Your task to perform on an android device: turn off improve location accuracy Image 0: 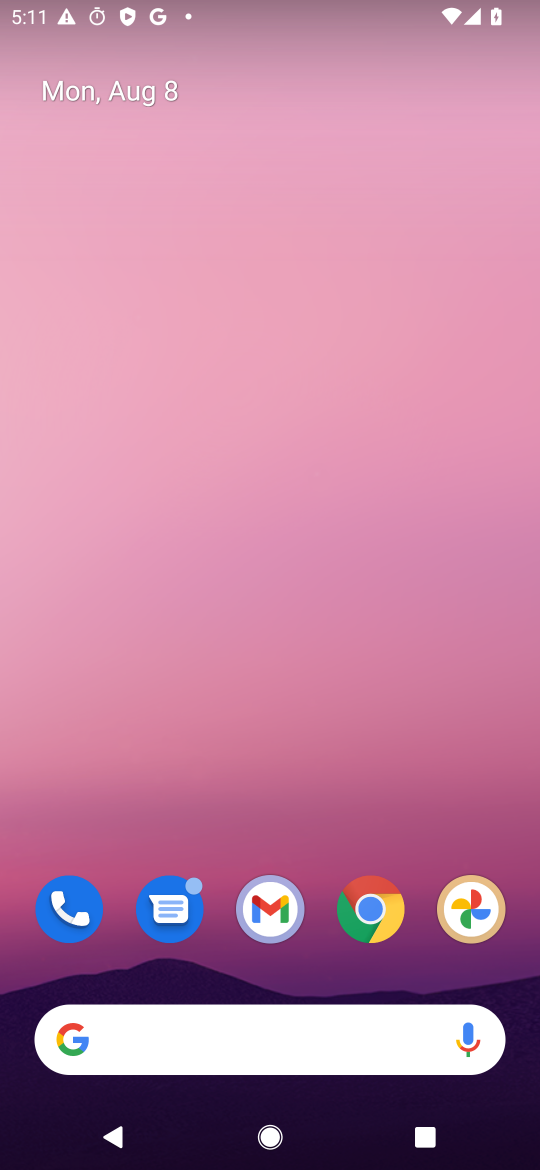
Step 0: drag from (279, 1043) to (465, 82)
Your task to perform on an android device: turn off improve location accuracy Image 1: 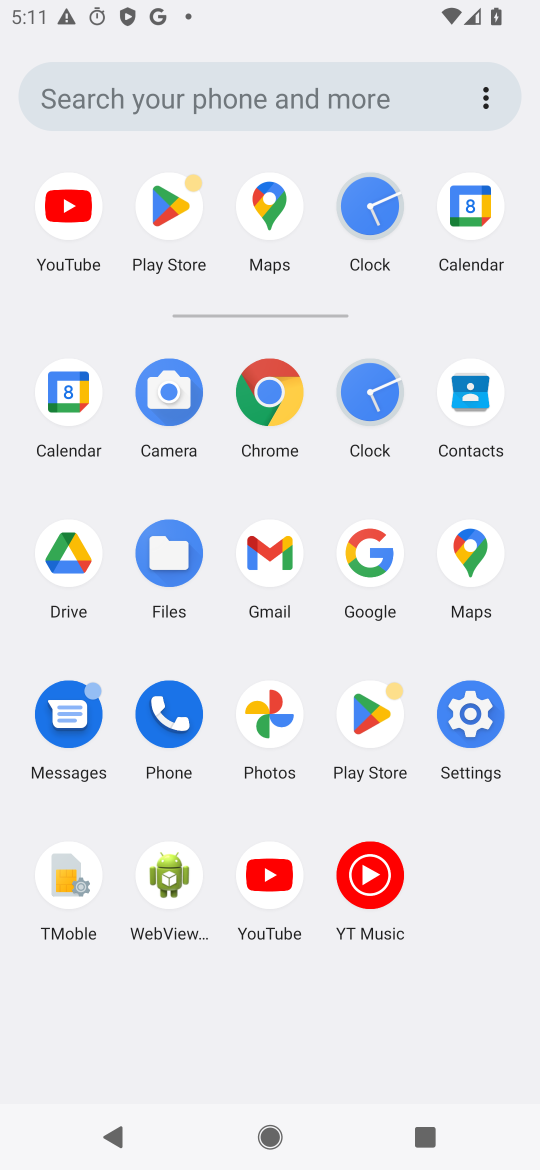
Step 1: click (470, 707)
Your task to perform on an android device: turn off improve location accuracy Image 2: 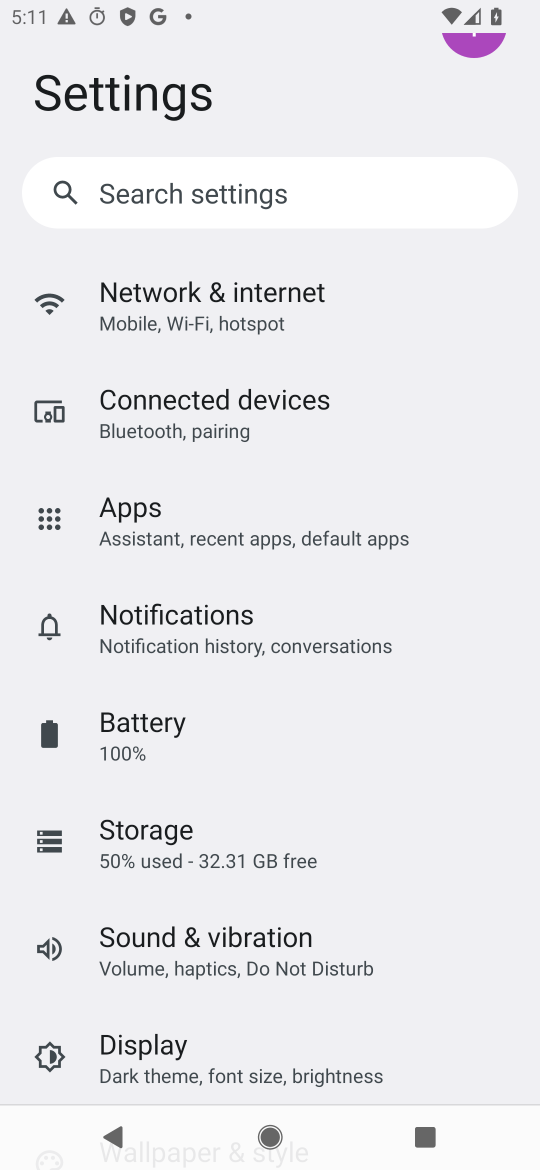
Step 2: drag from (392, 999) to (464, 304)
Your task to perform on an android device: turn off improve location accuracy Image 3: 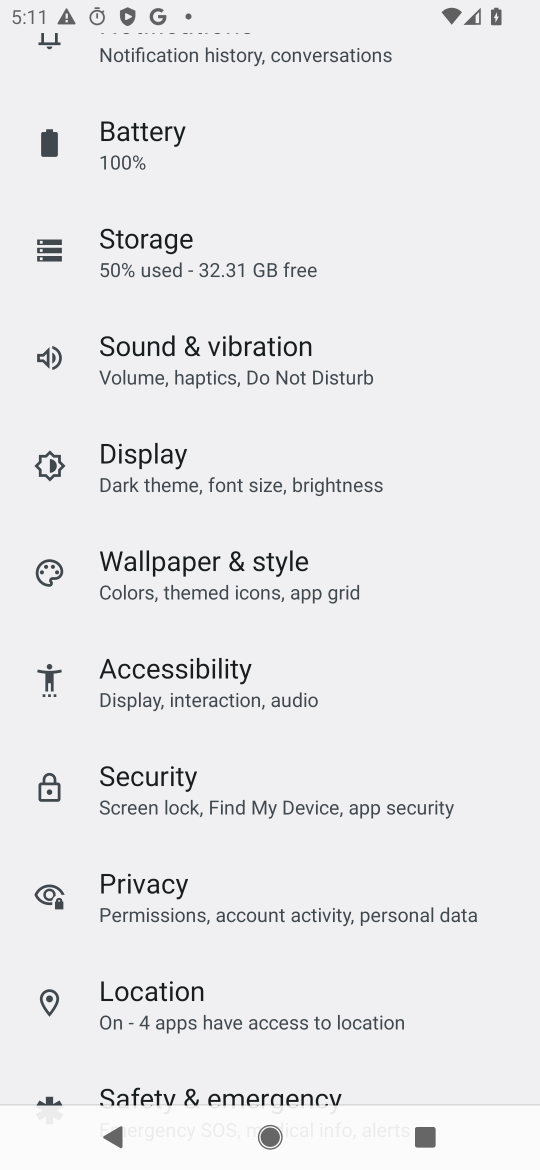
Step 3: click (208, 1002)
Your task to perform on an android device: turn off improve location accuracy Image 4: 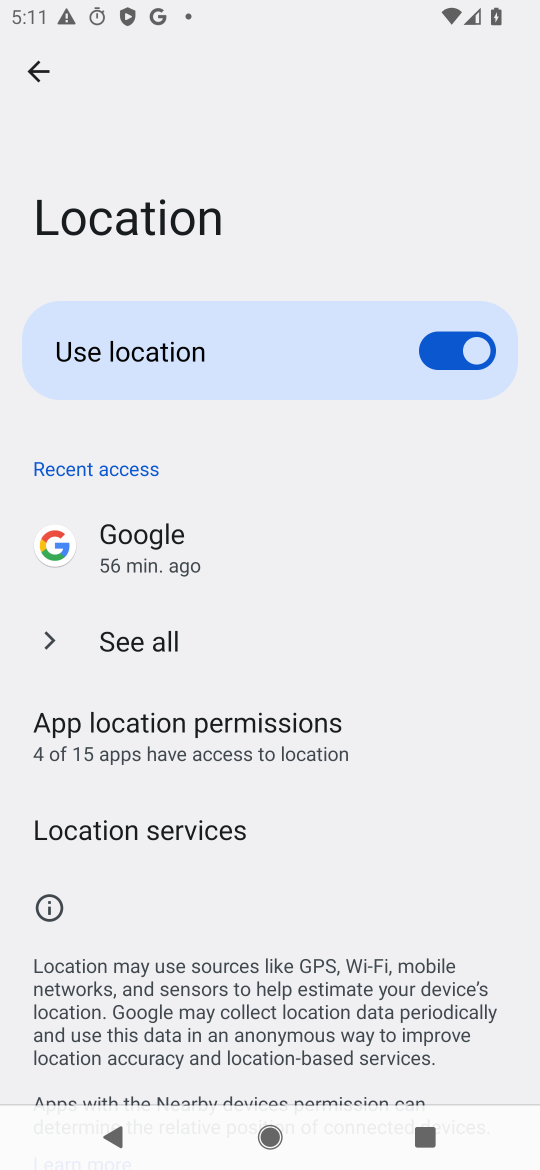
Step 4: click (175, 824)
Your task to perform on an android device: turn off improve location accuracy Image 5: 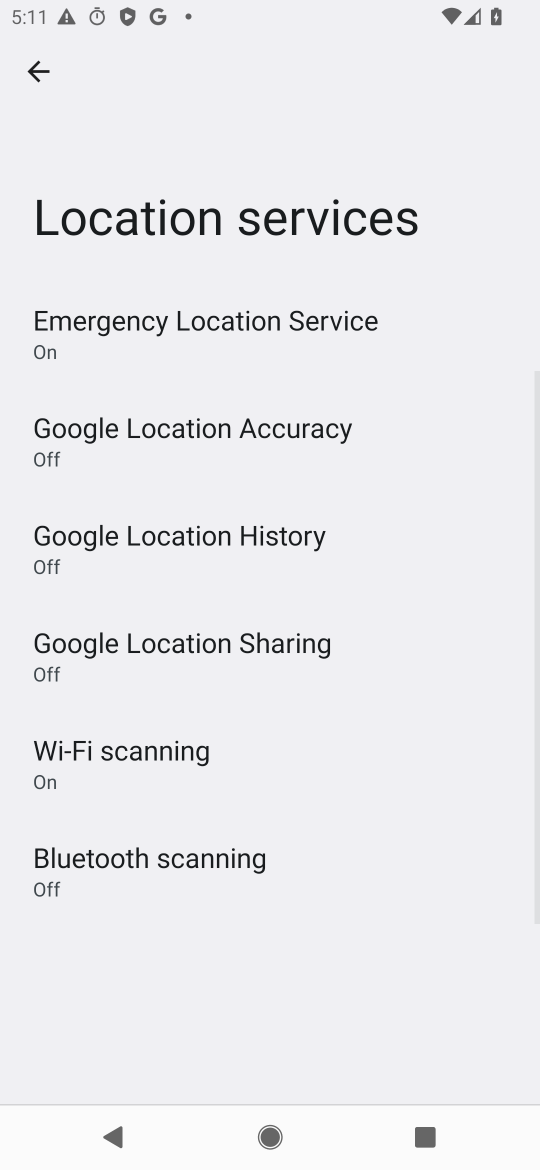
Step 5: click (198, 436)
Your task to perform on an android device: turn off improve location accuracy Image 6: 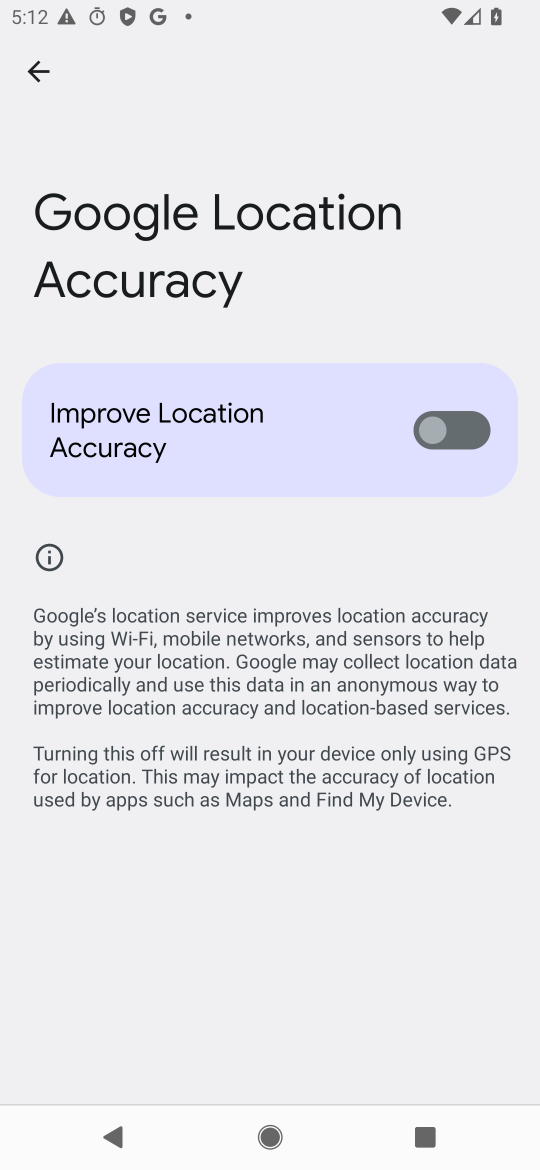
Step 6: task complete